Your task to perform on an android device: Go to CNN.com Image 0: 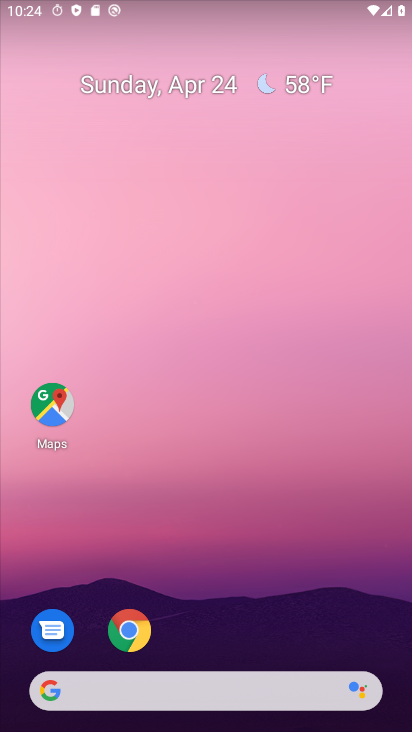
Step 0: click (142, 631)
Your task to perform on an android device: Go to CNN.com Image 1: 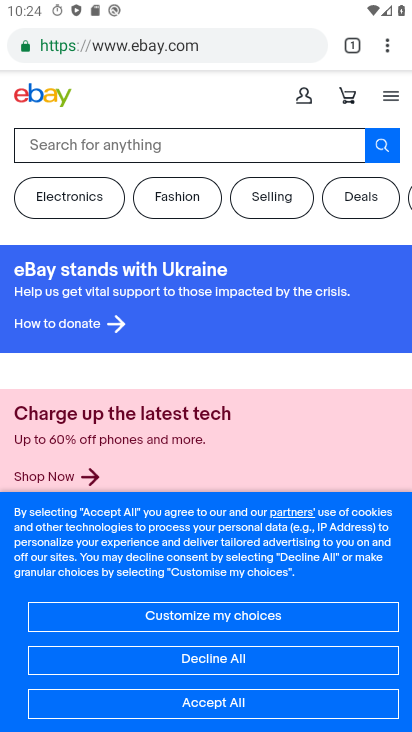
Step 1: click (251, 34)
Your task to perform on an android device: Go to CNN.com Image 2: 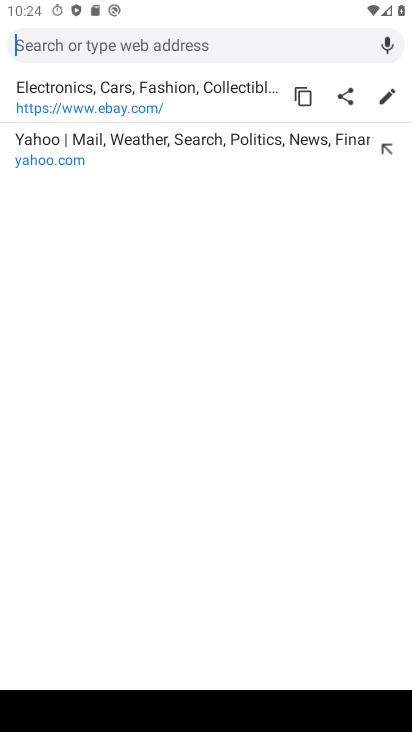
Step 2: type "cnn.com"
Your task to perform on an android device: Go to CNN.com Image 3: 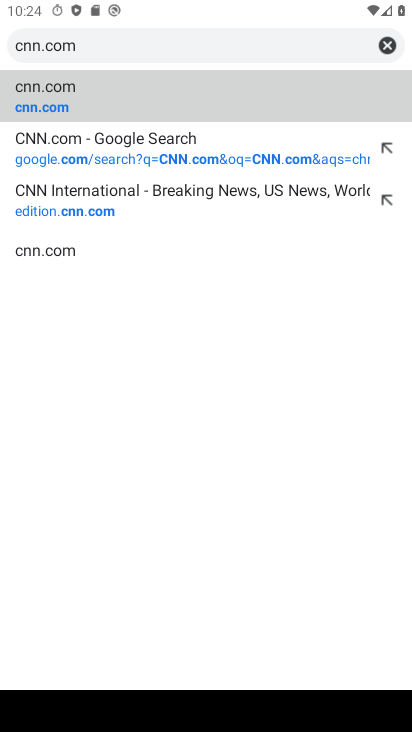
Step 3: click (179, 98)
Your task to perform on an android device: Go to CNN.com Image 4: 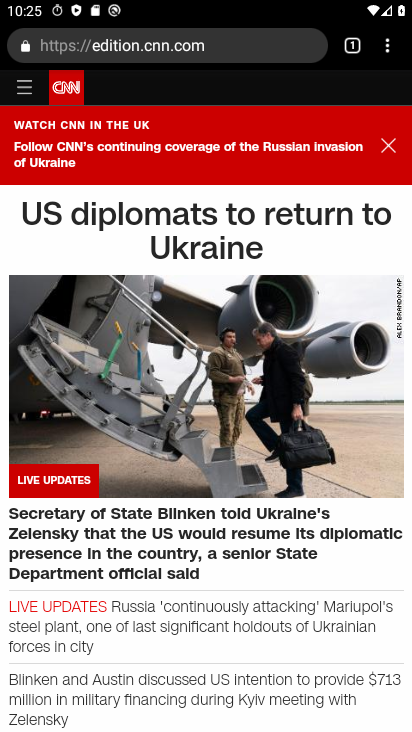
Step 4: task complete